Your task to perform on an android device: Open Youtube and go to "Your channel" Image 0: 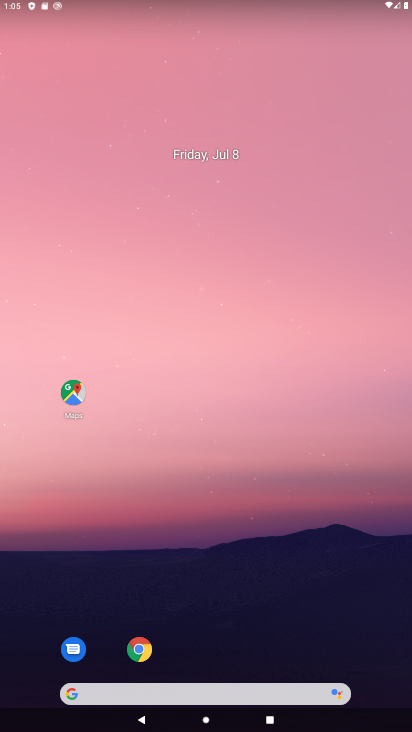
Step 0: drag from (268, 641) to (187, 6)
Your task to perform on an android device: Open Youtube and go to "Your channel" Image 1: 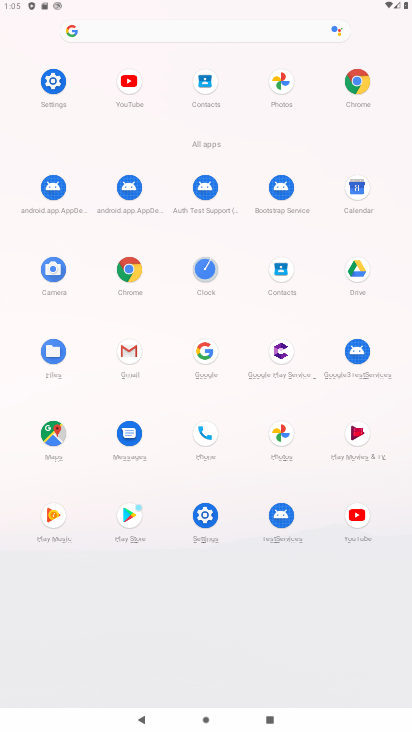
Step 1: click (125, 82)
Your task to perform on an android device: Open Youtube and go to "Your channel" Image 2: 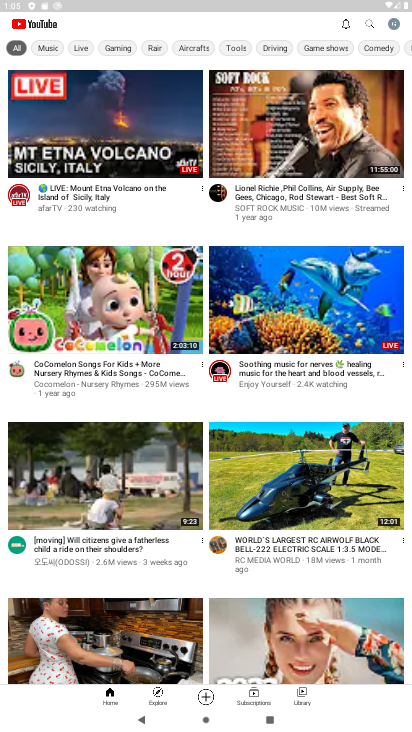
Step 2: click (397, 24)
Your task to perform on an android device: Open Youtube and go to "Your channel" Image 3: 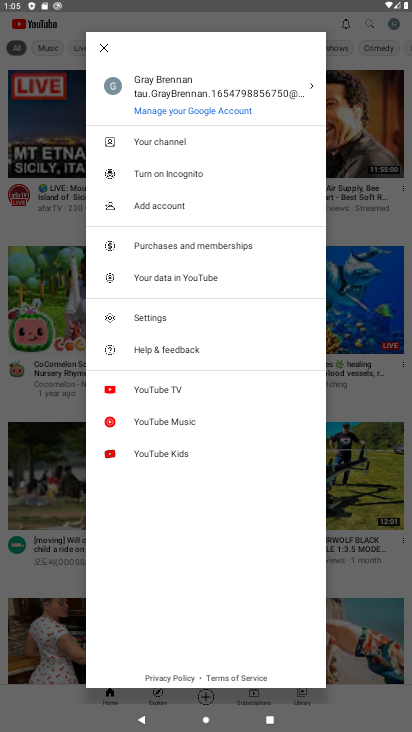
Step 3: click (177, 143)
Your task to perform on an android device: Open Youtube and go to "Your channel" Image 4: 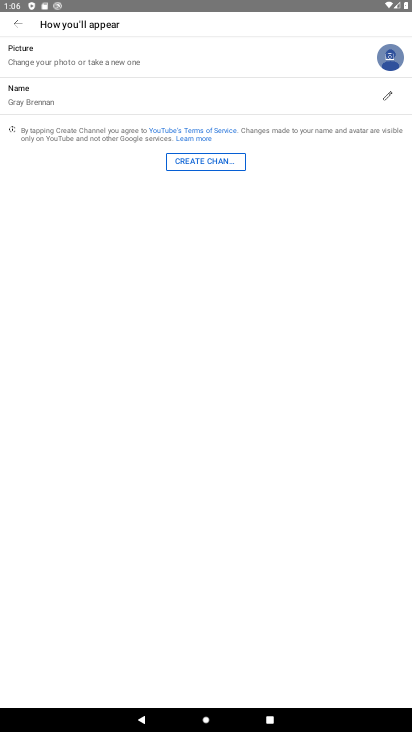
Step 4: task complete